Your task to perform on an android device: turn on airplane mode Image 0: 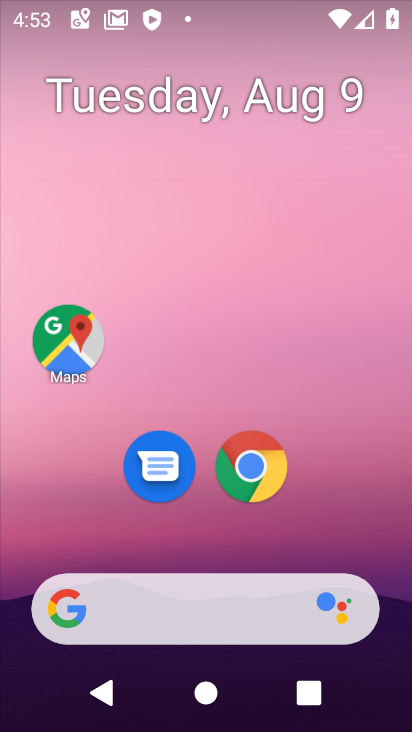
Step 0: drag from (216, 548) to (258, 200)
Your task to perform on an android device: turn on airplane mode Image 1: 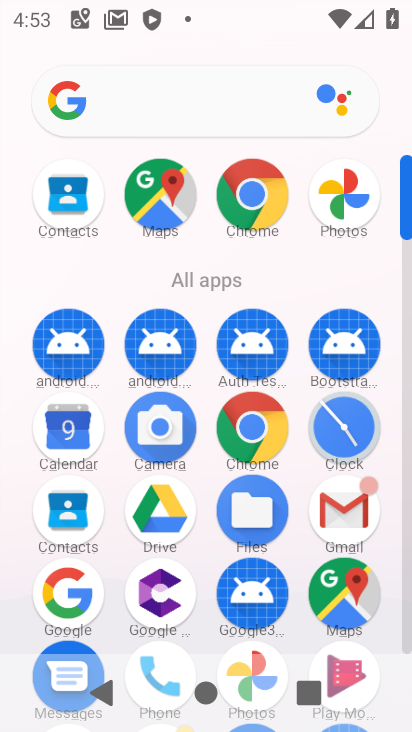
Step 1: drag from (199, 626) to (221, 260)
Your task to perform on an android device: turn on airplane mode Image 2: 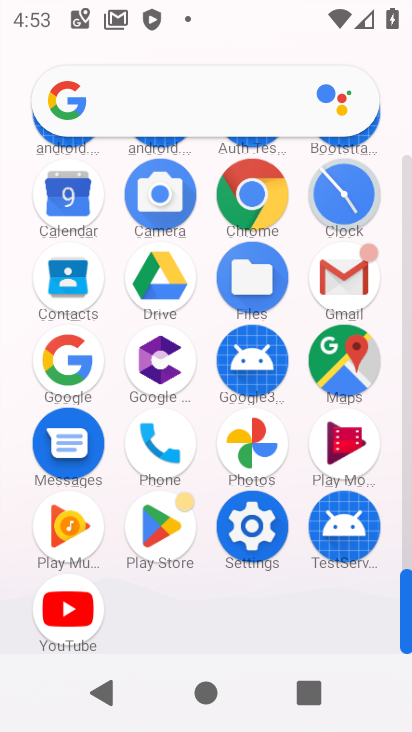
Step 2: click (245, 545)
Your task to perform on an android device: turn on airplane mode Image 3: 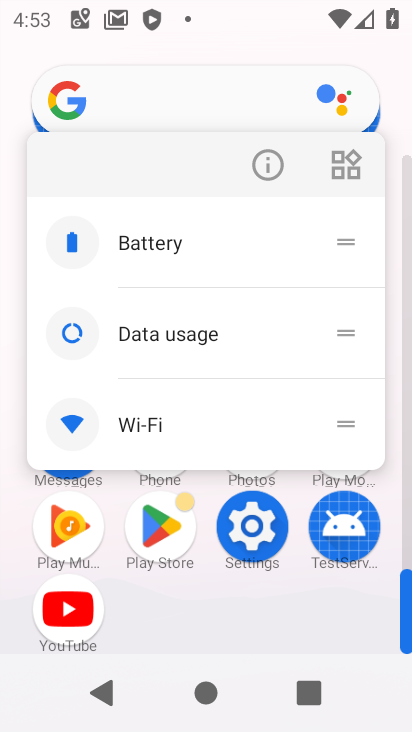
Step 3: click (268, 167)
Your task to perform on an android device: turn on airplane mode Image 4: 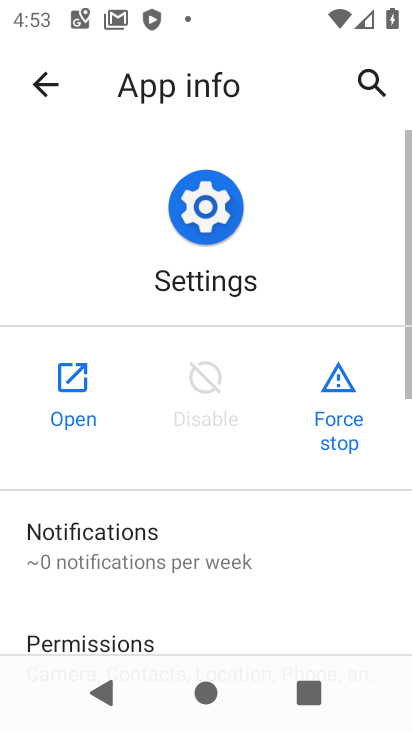
Step 4: click (78, 386)
Your task to perform on an android device: turn on airplane mode Image 5: 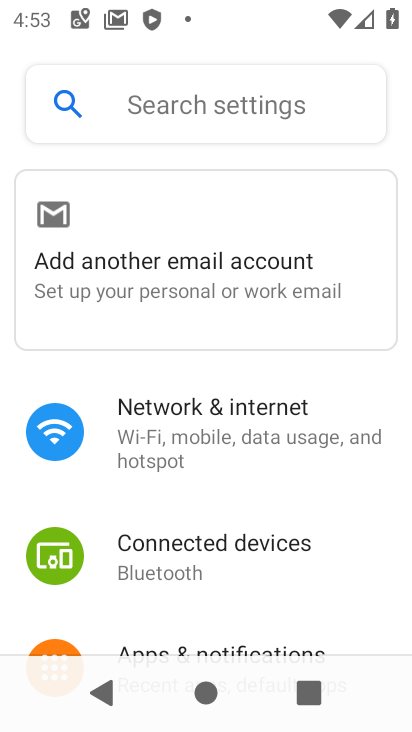
Step 5: click (179, 403)
Your task to perform on an android device: turn on airplane mode Image 6: 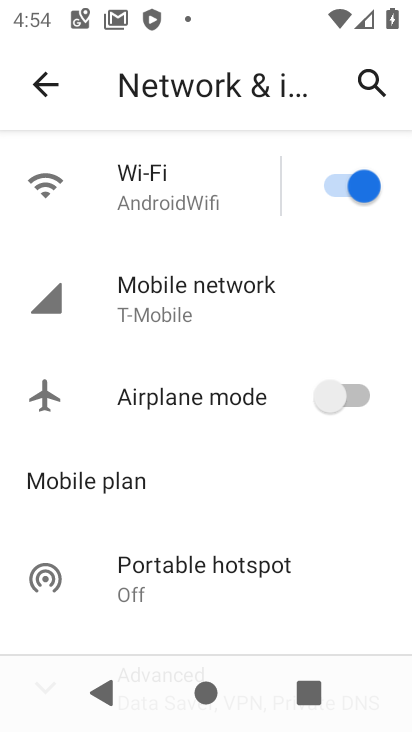
Step 6: drag from (203, 555) to (251, 281)
Your task to perform on an android device: turn on airplane mode Image 7: 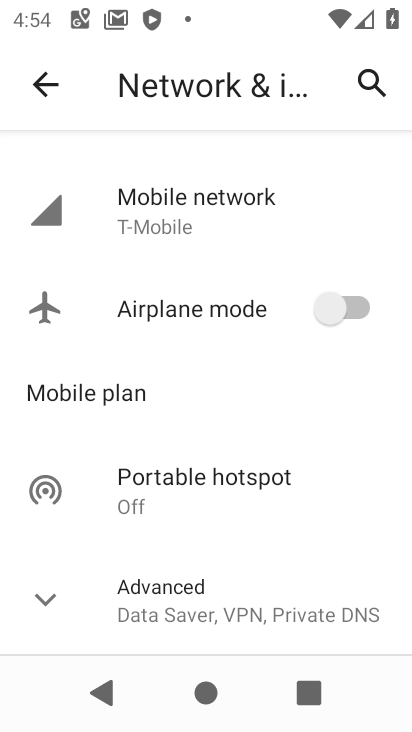
Step 7: click (236, 306)
Your task to perform on an android device: turn on airplane mode Image 8: 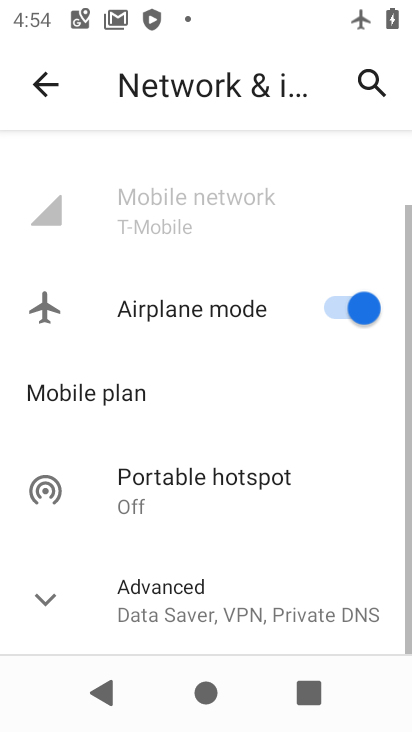
Step 8: task complete